Your task to perform on an android device: Open network settings Image 0: 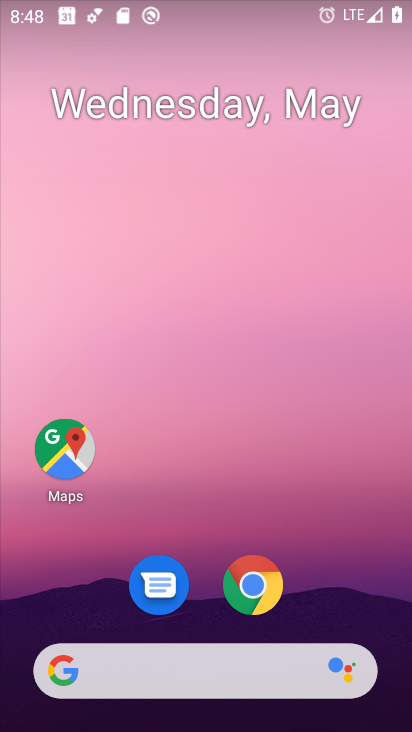
Step 0: drag from (336, 582) to (295, 63)
Your task to perform on an android device: Open network settings Image 1: 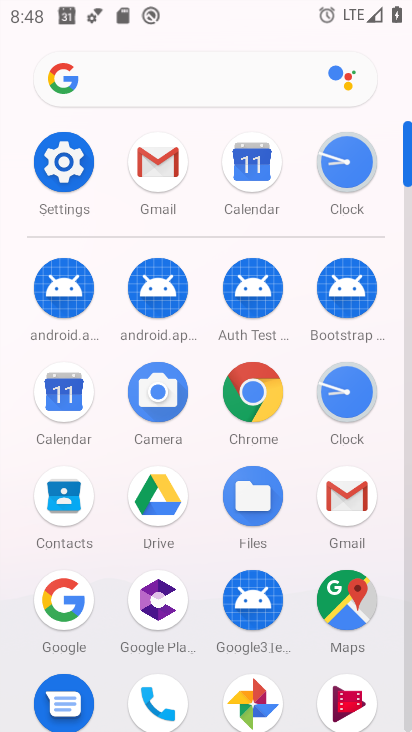
Step 1: click (73, 155)
Your task to perform on an android device: Open network settings Image 2: 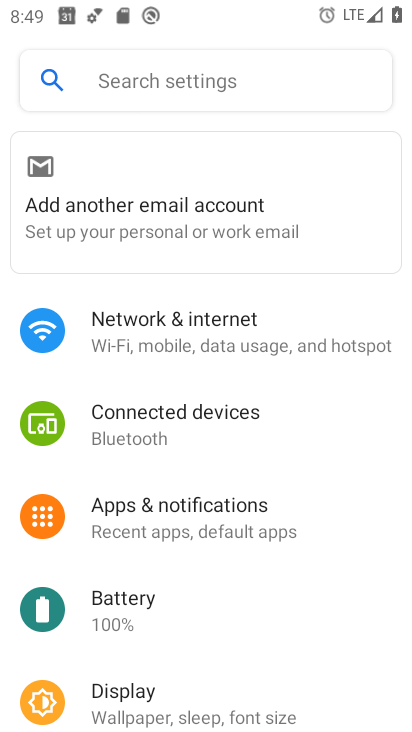
Step 2: click (185, 312)
Your task to perform on an android device: Open network settings Image 3: 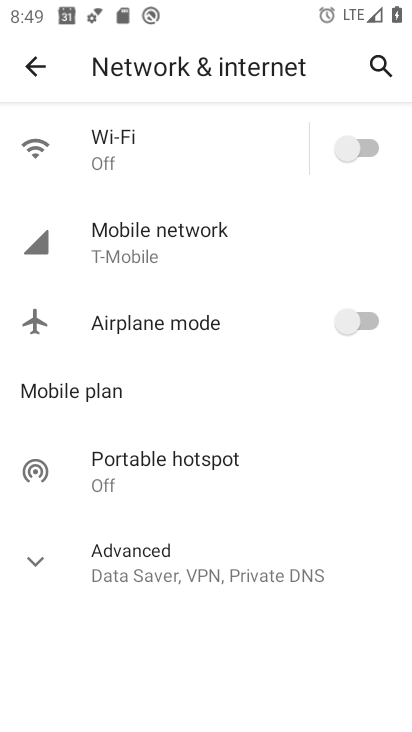
Step 3: task complete